Your task to perform on an android device: Open settings on Google Maps Image 0: 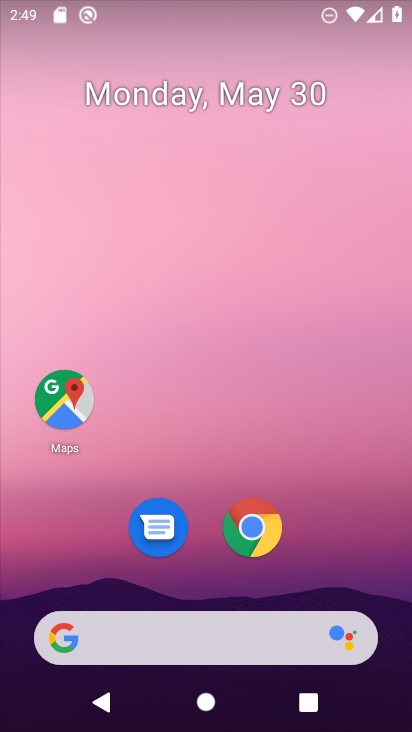
Step 0: click (205, 120)
Your task to perform on an android device: Open settings on Google Maps Image 1: 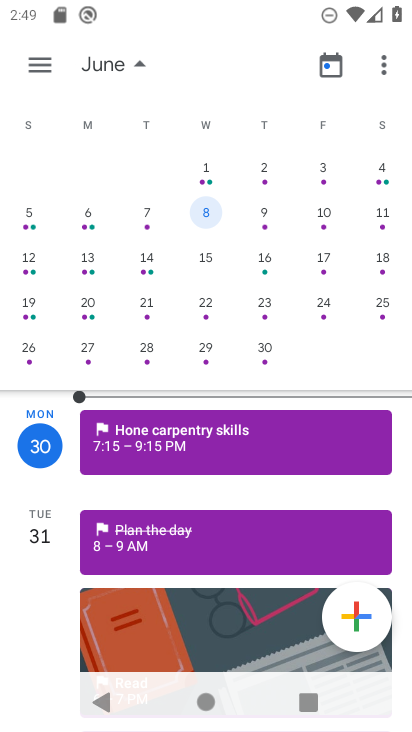
Step 1: press back button
Your task to perform on an android device: Open settings on Google Maps Image 2: 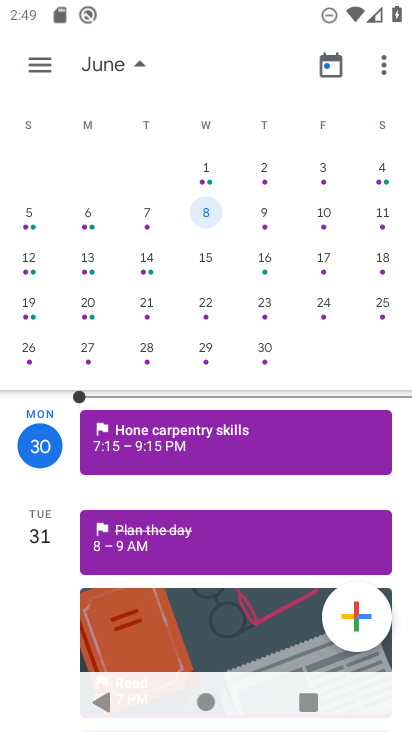
Step 2: press back button
Your task to perform on an android device: Open settings on Google Maps Image 3: 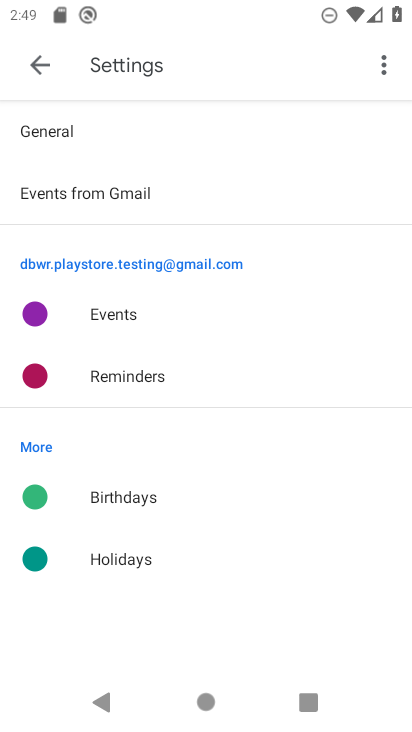
Step 3: press home button
Your task to perform on an android device: Open settings on Google Maps Image 4: 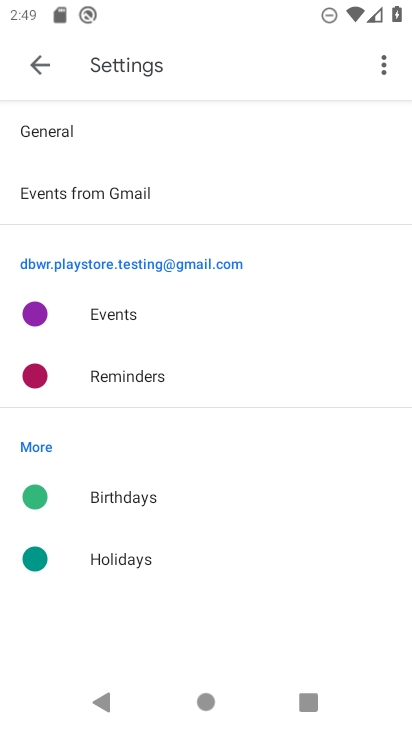
Step 4: press home button
Your task to perform on an android device: Open settings on Google Maps Image 5: 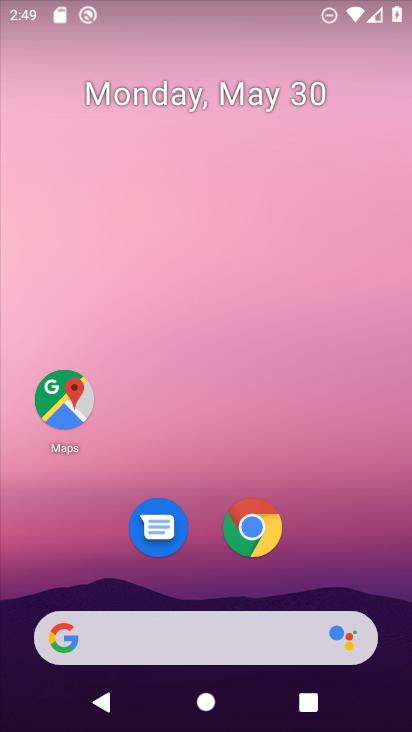
Step 5: drag from (259, 662) to (226, 208)
Your task to perform on an android device: Open settings on Google Maps Image 6: 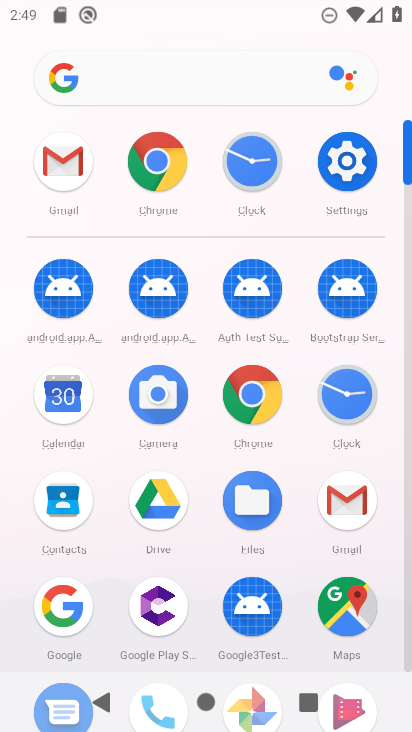
Step 6: click (350, 609)
Your task to perform on an android device: Open settings on Google Maps Image 7: 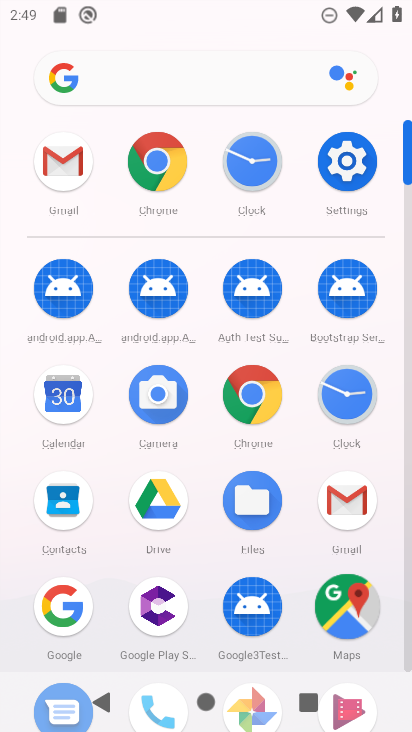
Step 7: click (350, 609)
Your task to perform on an android device: Open settings on Google Maps Image 8: 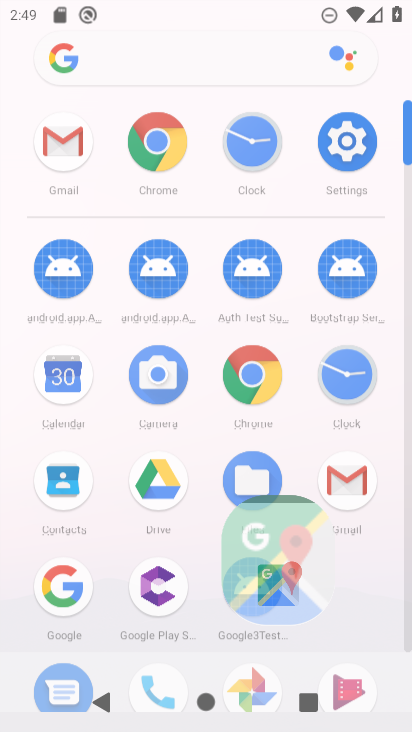
Step 8: click (344, 618)
Your task to perform on an android device: Open settings on Google Maps Image 9: 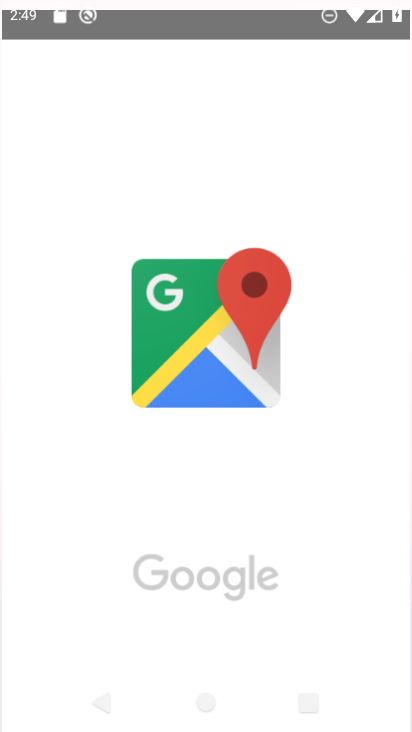
Step 9: click (330, 633)
Your task to perform on an android device: Open settings on Google Maps Image 10: 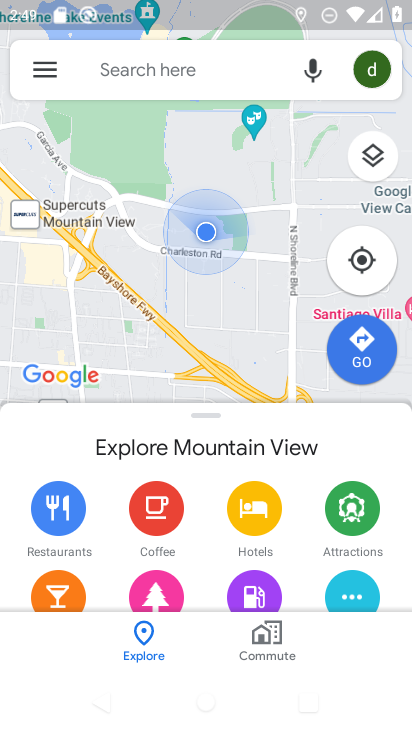
Step 10: click (125, 76)
Your task to perform on an android device: Open settings on Google Maps Image 11: 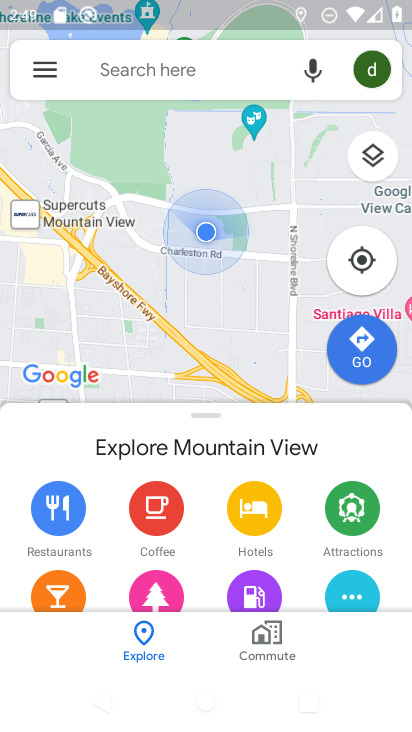
Step 11: click (123, 87)
Your task to perform on an android device: Open settings on Google Maps Image 12: 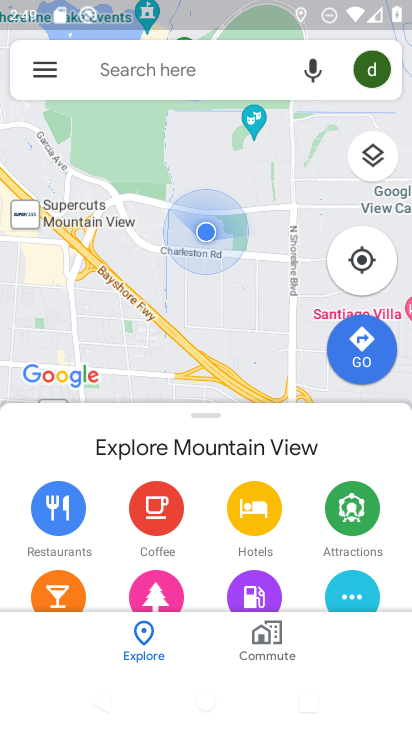
Step 12: click (123, 90)
Your task to perform on an android device: Open settings on Google Maps Image 13: 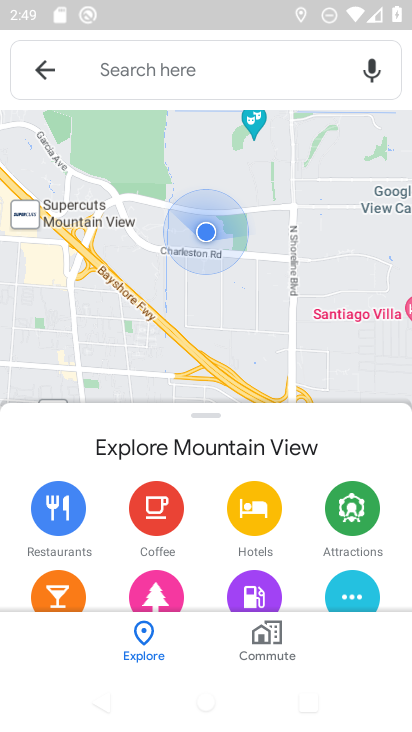
Step 13: click (123, 93)
Your task to perform on an android device: Open settings on Google Maps Image 14: 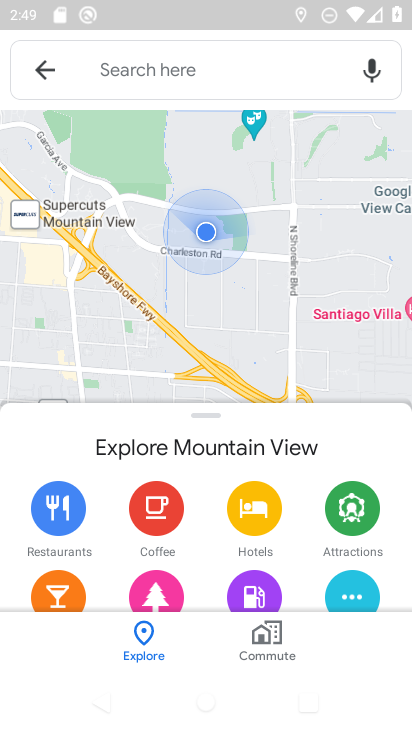
Step 14: click (123, 93)
Your task to perform on an android device: Open settings on Google Maps Image 15: 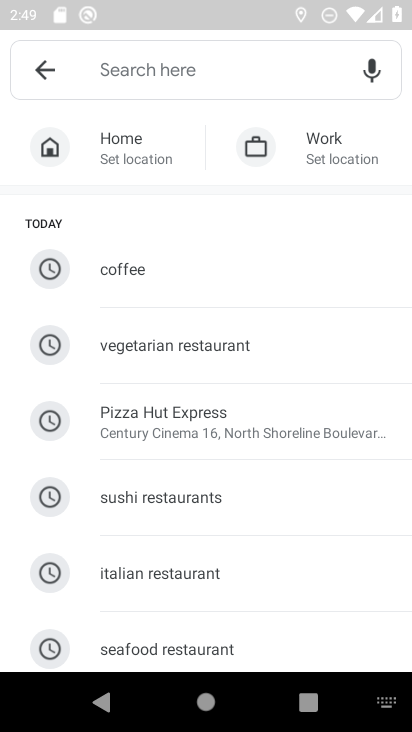
Step 15: task complete